Your task to perform on an android device: find photos in the google photos app Image 0: 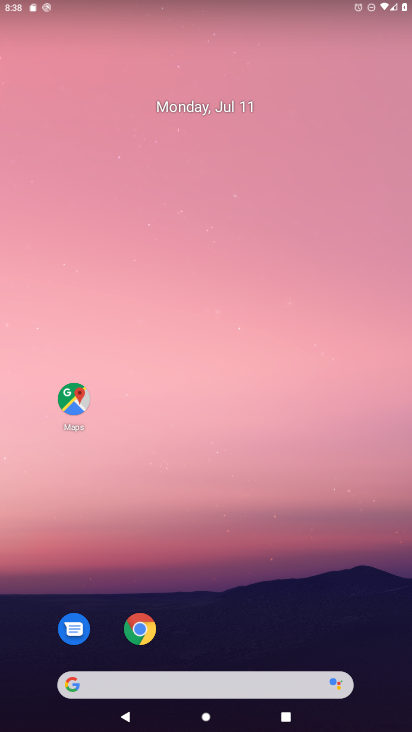
Step 0: drag from (218, 646) to (219, 171)
Your task to perform on an android device: find photos in the google photos app Image 1: 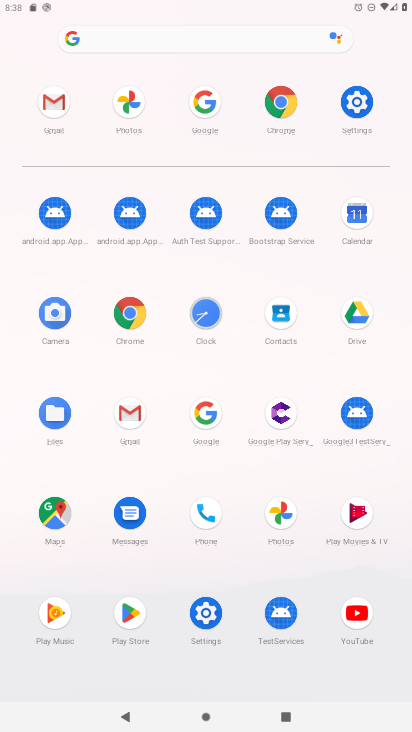
Step 1: click (283, 512)
Your task to perform on an android device: find photos in the google photos app Image 2: 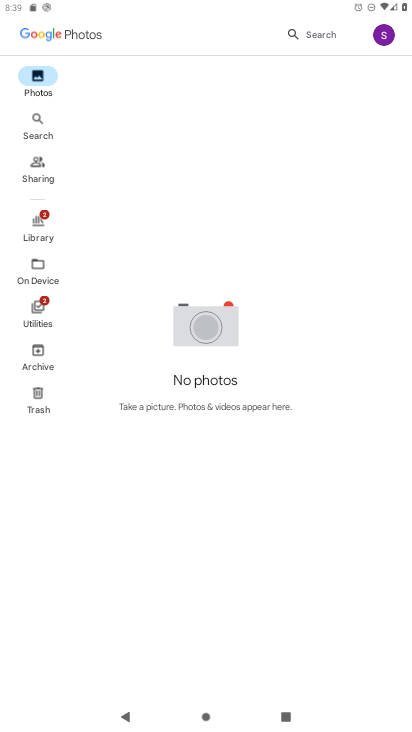
Step 2: task complete